Your task to perform on an android device: toggle location history Image 0: 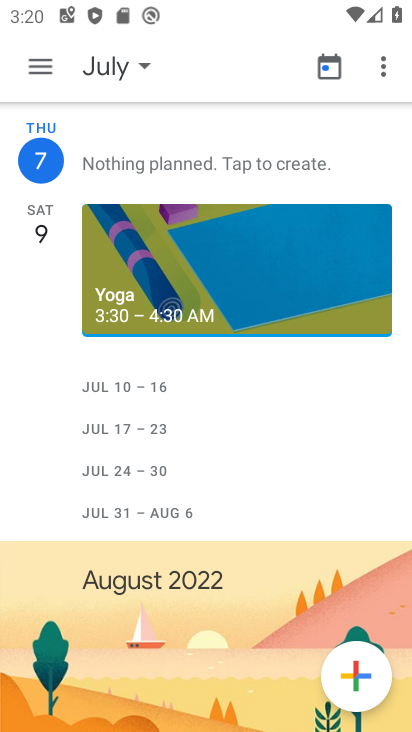
Step 0: press home button
Your task to perform on an android device: toggle location history Image 1: 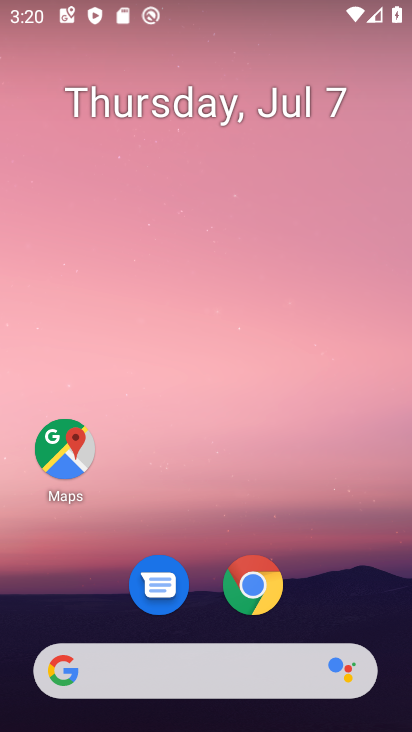
Step 1: drag from (271, 497) to (270, 16)
Your task to perform on an android device: toggle location history Image 2: 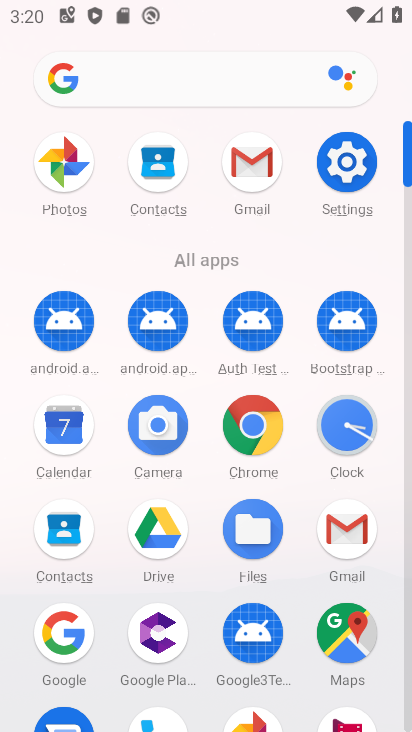
Step 2: click (334, 174)
Your task to perform on an android device: toggle location history Image 3: 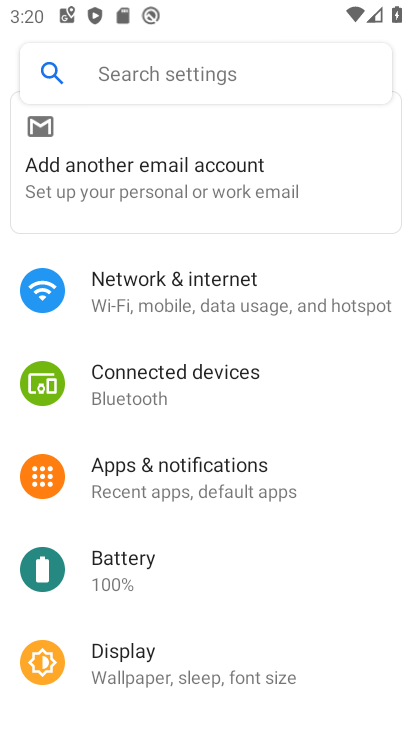
Step 3: drag from (230, 629) to (213, 125)
Your task to perform on an android device: toggle location history Image 4: 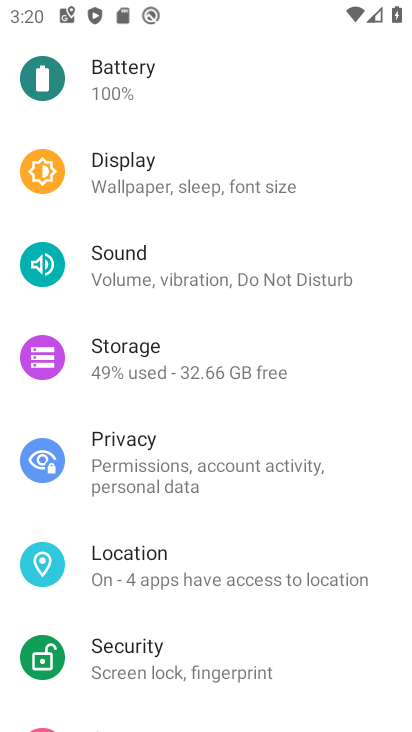
Step 4: click (195, 565)
Your task to perform on an android device: toggle location history Image 5: 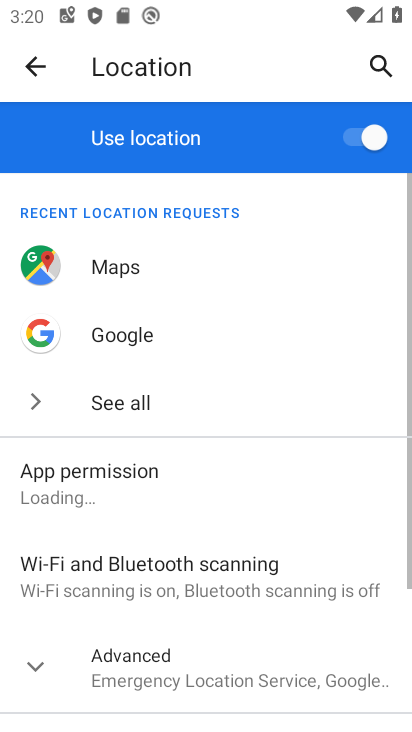
Step 5: click (215, 328)
Your task to perform on an android device: toggle location history Image 6: 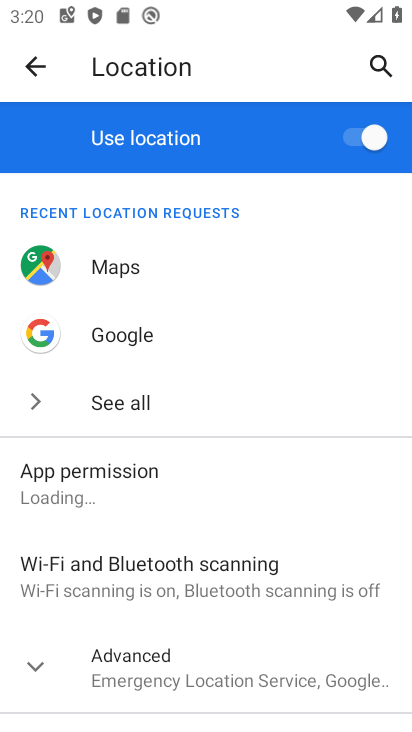
Step 6: click (38, 665)
Your task to perform on an android device: toggle location history Image 7: 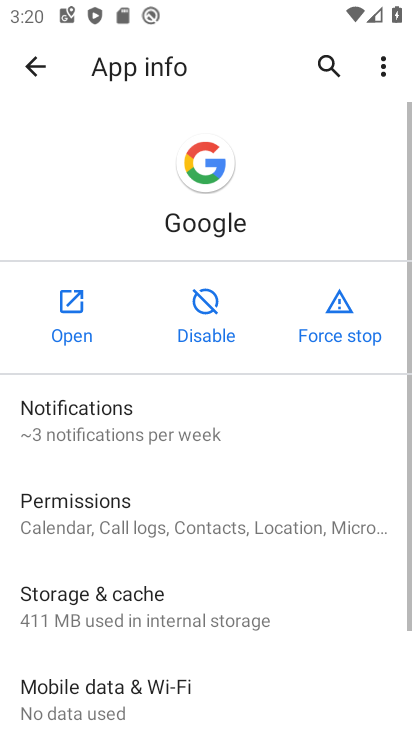
Step 7: drag from (232, 626) to (247, 180)
Your task to perform on an android device: toggle location history Image 8: 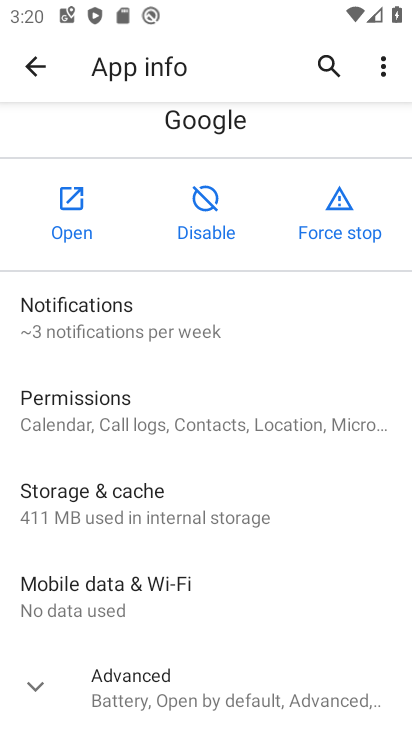
Step 8: click (41, 683)
Your task to perform on an android device: toggle location history Image 9: 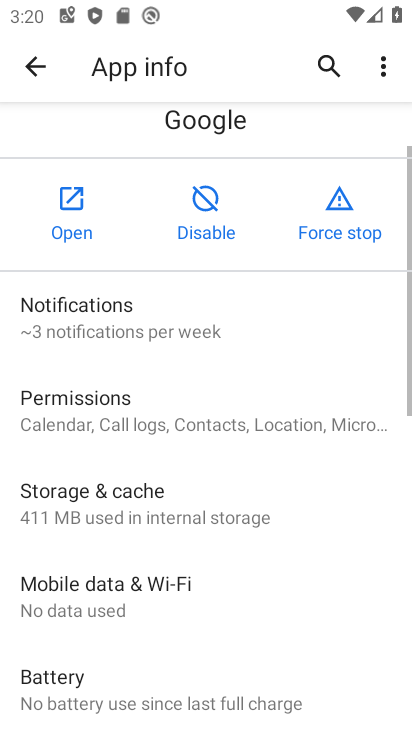
Step 9: drag from (214, 652) to (221, 256)
Your task to perform on an android device: toggle location history Image 10: 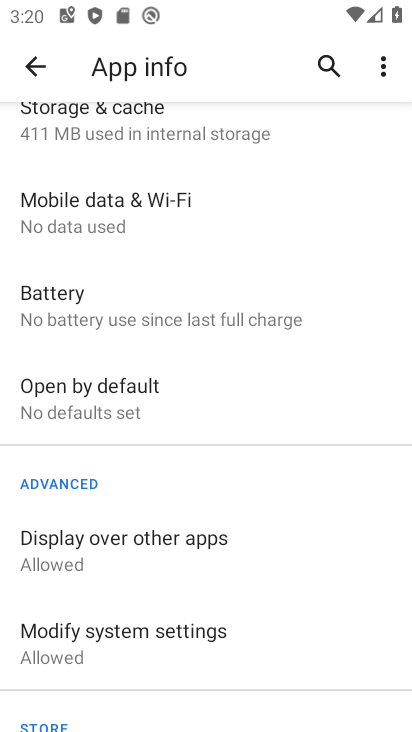
Step 10: drag from (253, 527) to (227, 155)
Your task to perform on an android device: toggle location history Image 11: 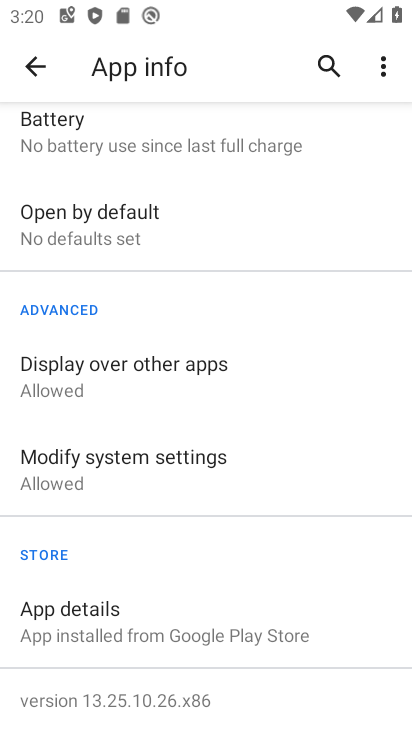
Step 11: click (32, 62)
Your task to perform on an android device: toggle location history Image 12: 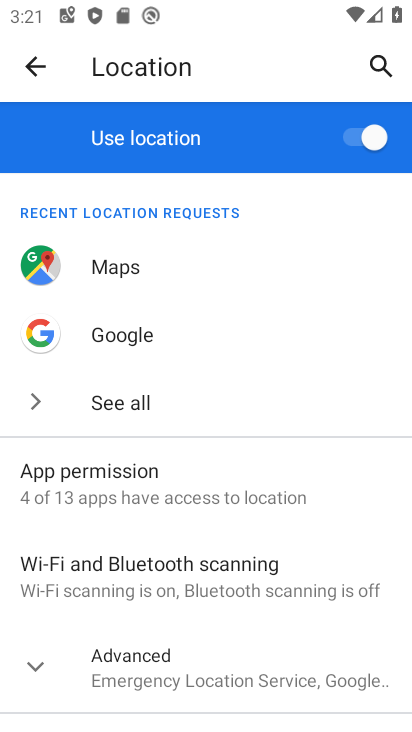
Step 12: click (36, 664)
Your task to perform on an android device: toggle location history Image 13: 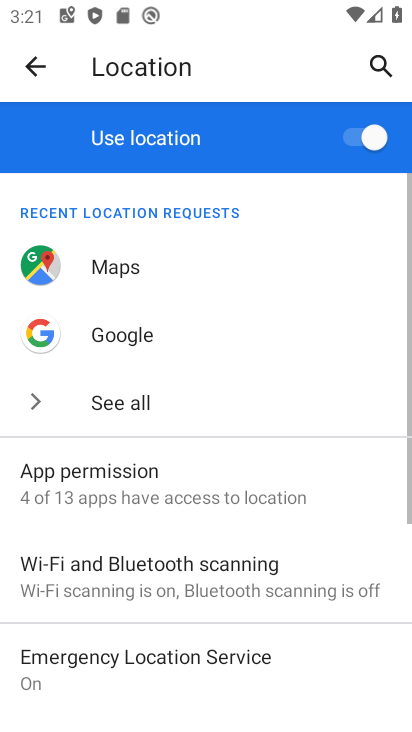
Step 13: drag from (269, 528) to (269, 196)
Your task to perform on an android device: toggle location history Image 14: 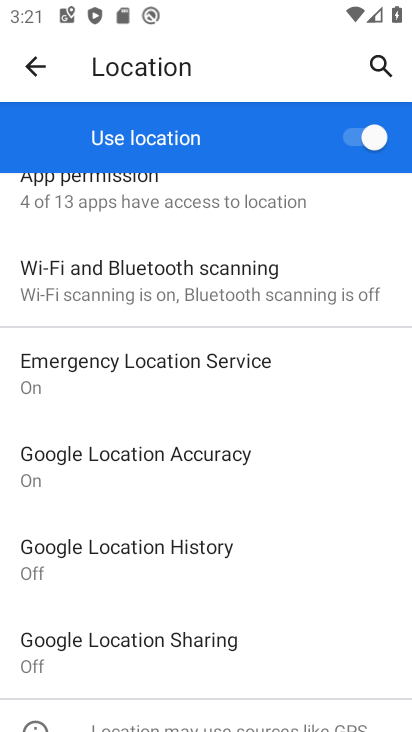
Step 14: click (166, 547)
Your task to perform on an android device: toggle location history Image 15: 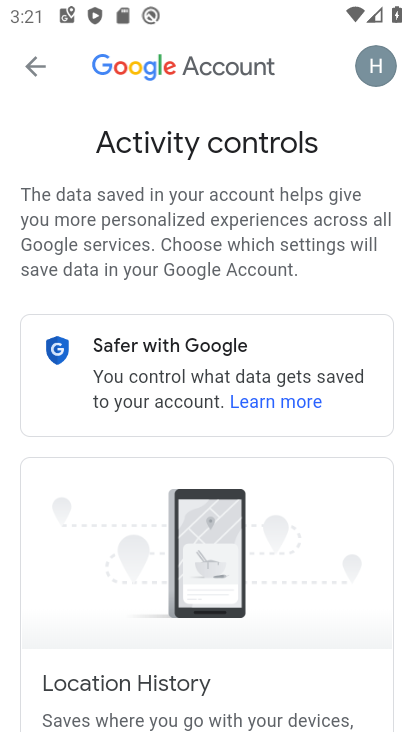
Step 15: drag from (279, 541) to (254, 155)
Your task to perform on an android device: toggle location history Image 16: 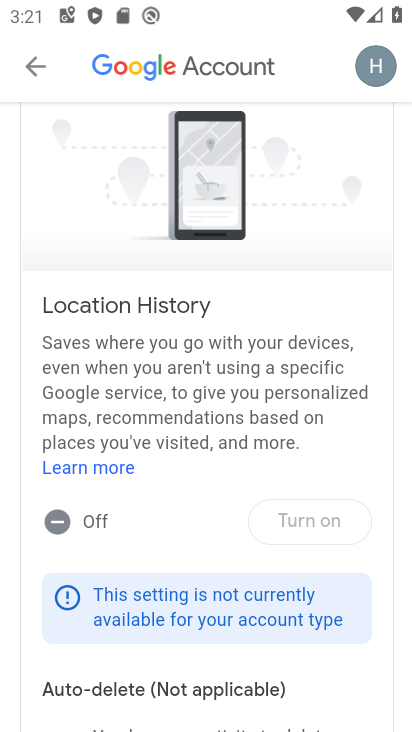
Step 16: click (269, 608)
Your task to perform on an android device: toggle location history Image 17: 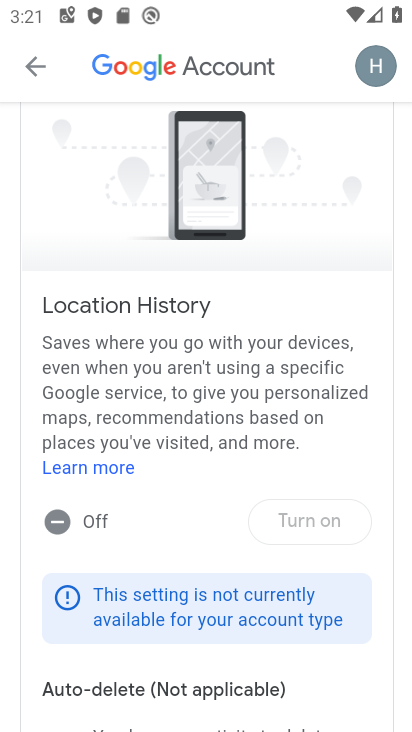
Step 17: click (333, 510)
Your task to perform on an android device: toggle location history Image 18: 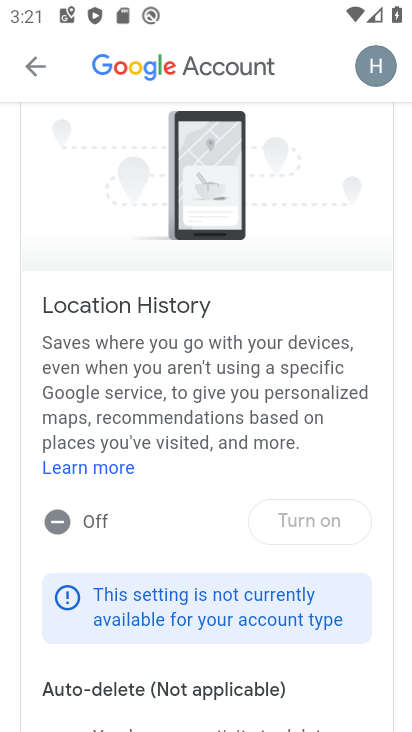
Step 18: task complete